Your task to perform on an android device: turn notification dots off Image 0: 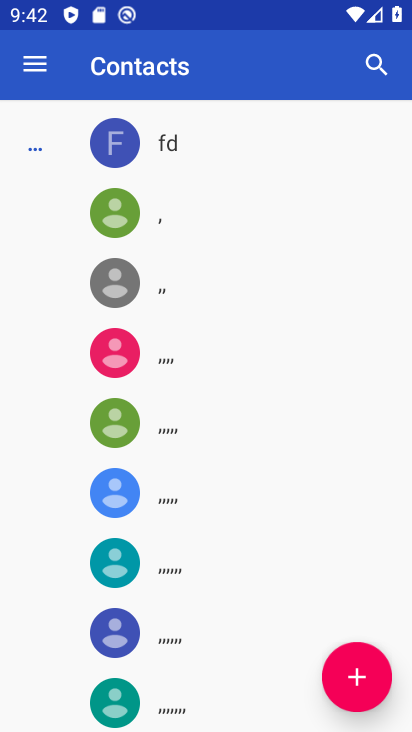
Step 0: press home button
Your task to perform on an android device: turn notification dots off Image 1: 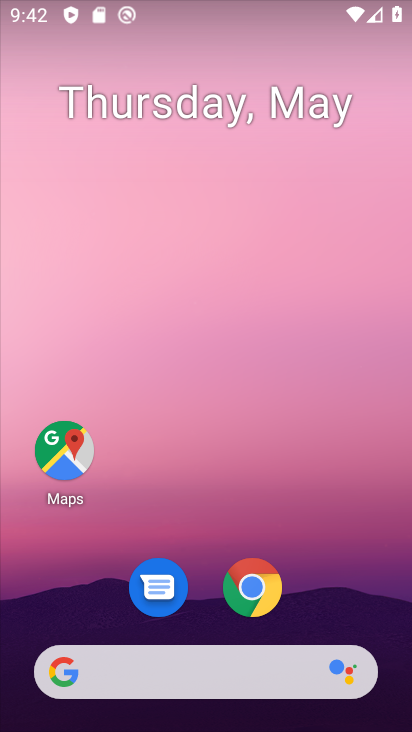
Step 1: drag from (408, 658) to (310, 6)
Your task to perform on an android device: turn notification dots off Image 2: 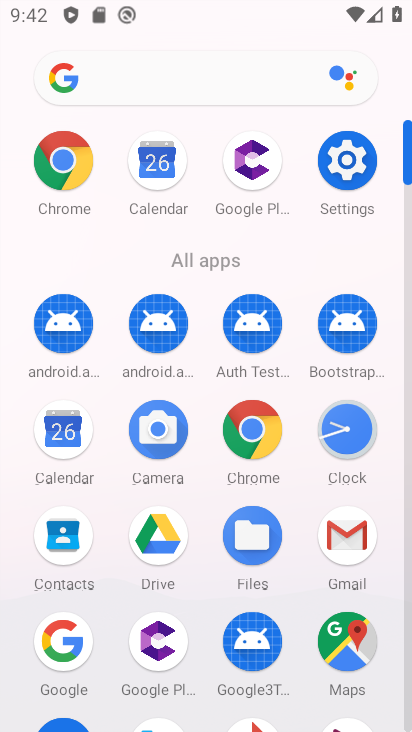
Step 2: click (340, 169)
Your task to perform on an android device: turn notification dots off Image 3: 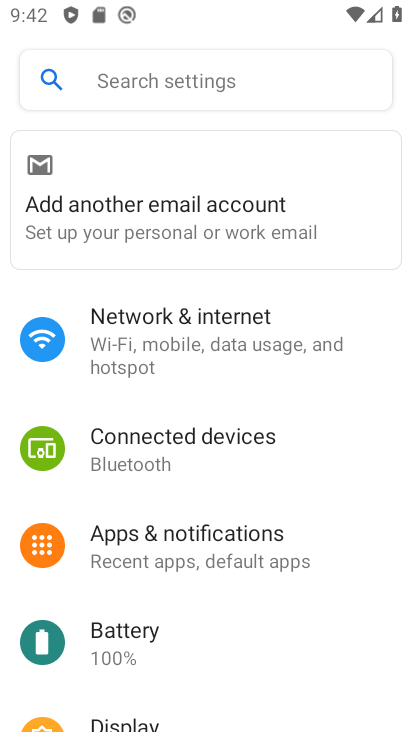
Step 3: click (231, 532)
Your task to perform on an android device: turn notification dots off Image 4: 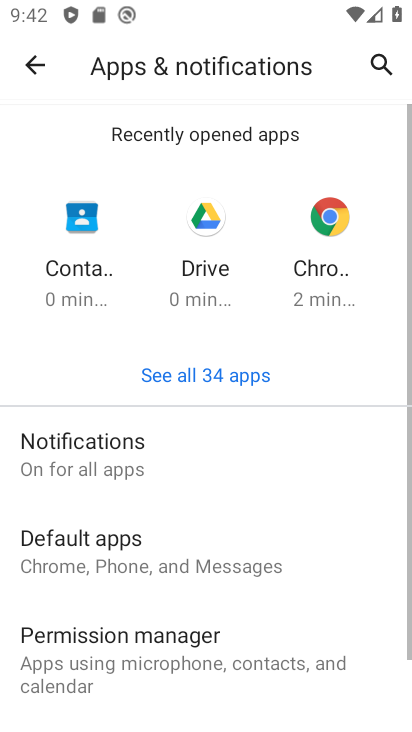
Step 4: click (128, 447)
Your task to perform on an android device: turn notification dots off Image 5: 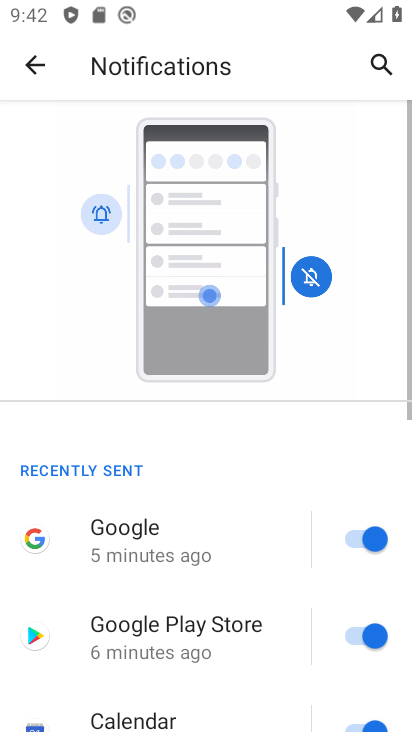
Step 5: drag from (192, 642) to (250, 48)
Your task to perform on an android device: turn notification dots off Image 6: 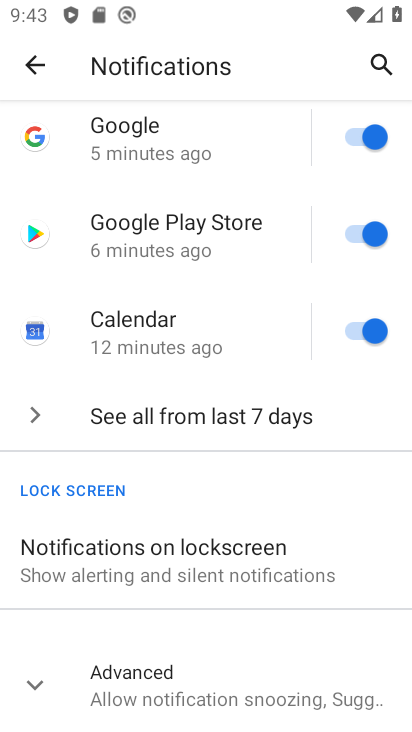
Step 6: click (175, 702)
Your task to perform on an android device: turn notification dots off Image 7: 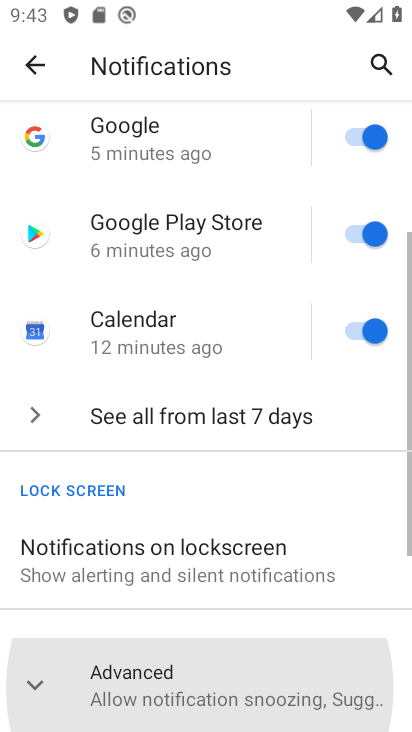
Step 7: task complete